Your task to perform on an android device: uninstall "Grab" Image 0: 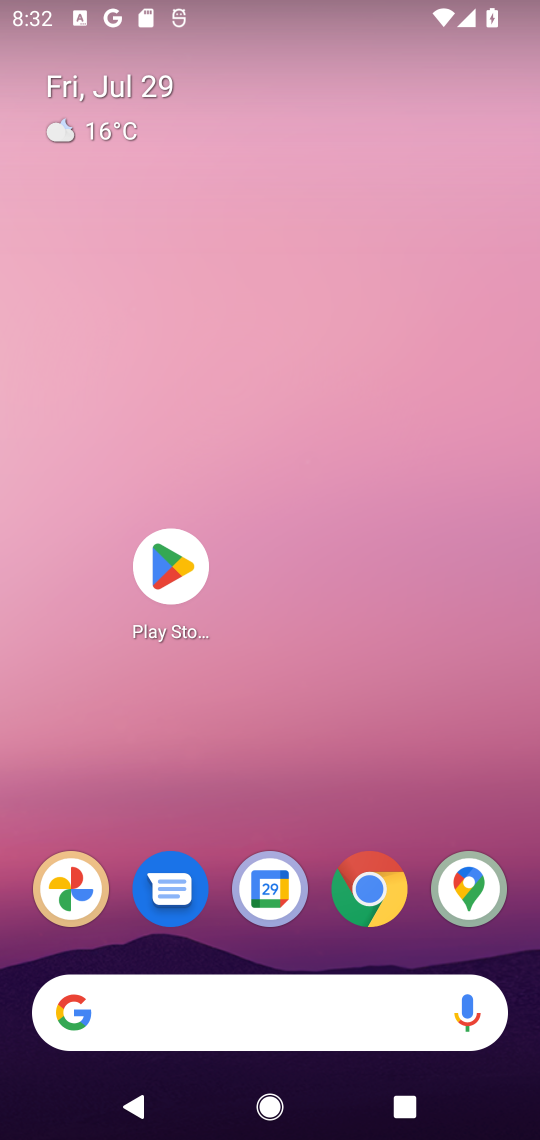
Step 0: press home button
Your task to perform on an android device: uninstall "Grab" Image 1: 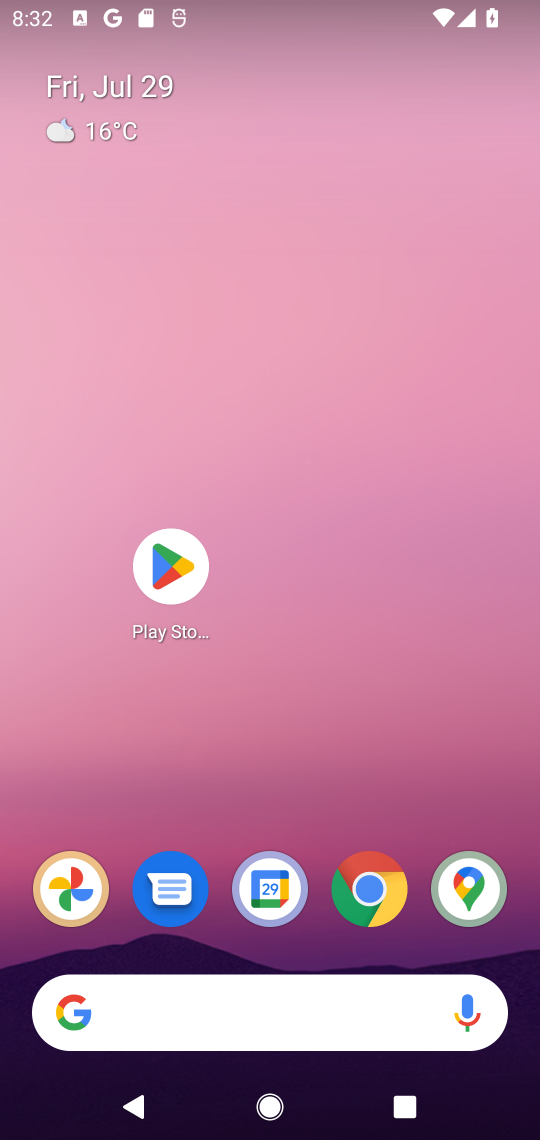
Step 1: click (183, 565)
Your task to perform on an android device: uninstall "Grab" Image 2: 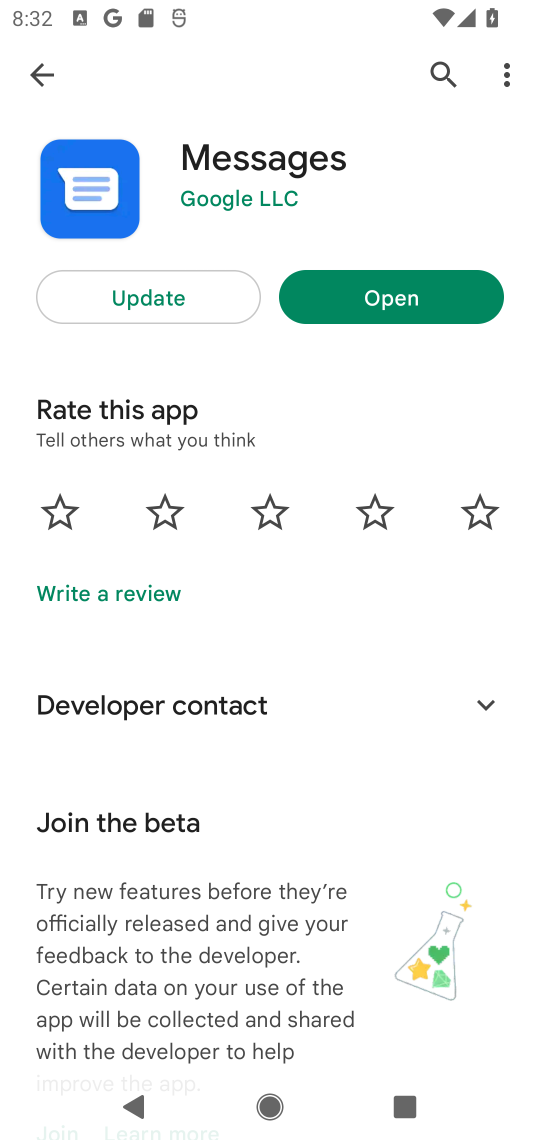
Step 2: click (437, 81)
Your task to perform on an android device: uninstall "Grab" Image 3: 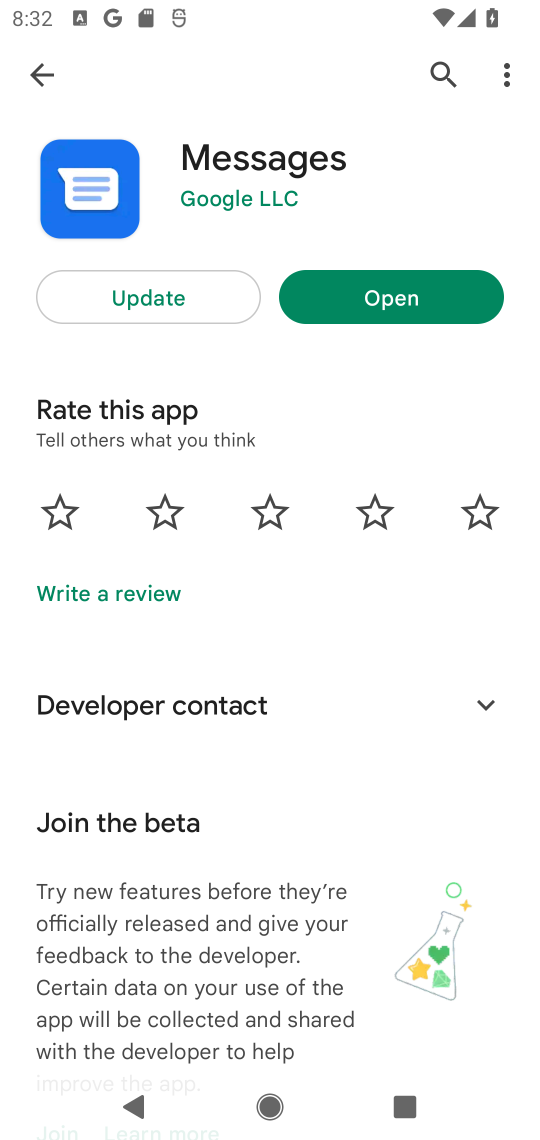
Step 3: click (437, 62)
Your task to perform on an android device: uninstall "Grab" Image 4: 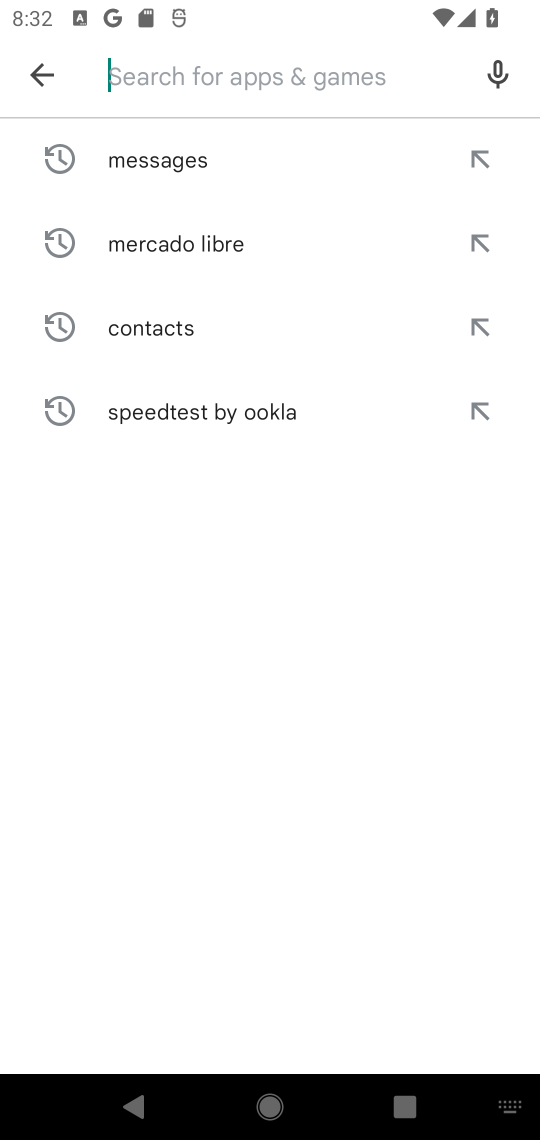
Step 4: type "Grab"
Your task to perform on an android device: uninstall "Grab" Image 5: 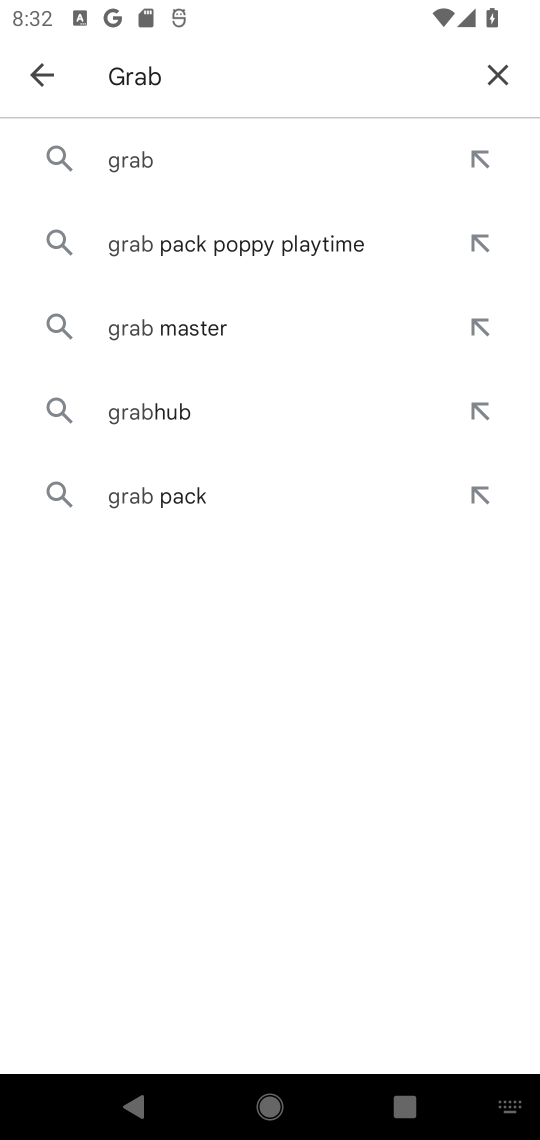
Step 5: click (140, 169)
Your task to perform on an android device: uninstall "Grab" Image 6: 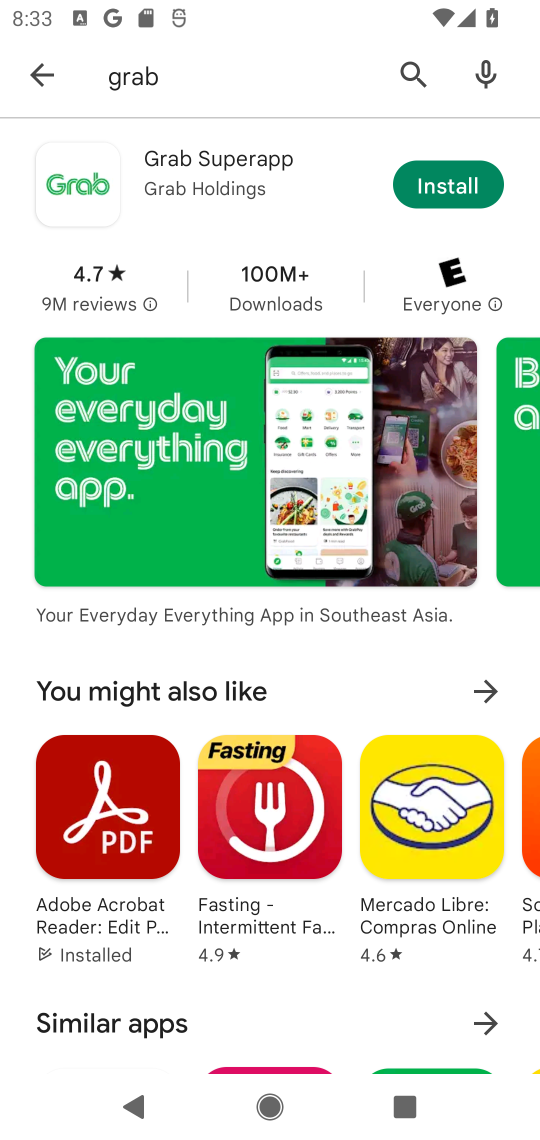
Step 6: task complete